Your task to perform on an android device: Open Maps and search for coffee Image 0: 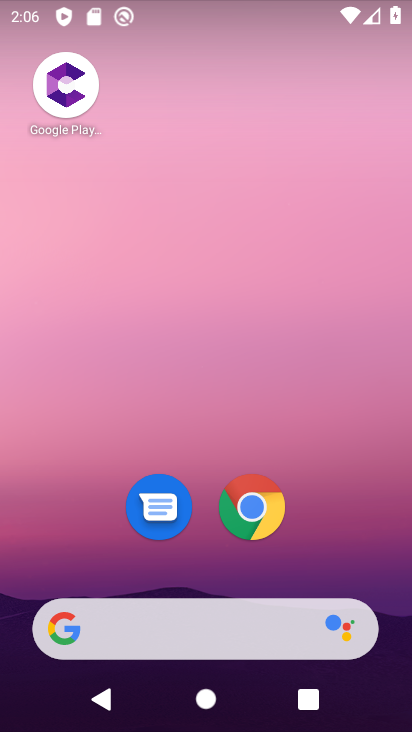
Step 0: drag from (249, 645) to (258, 201)
Your task to perform on an android device: Open Maps and search for coffee Image 1: 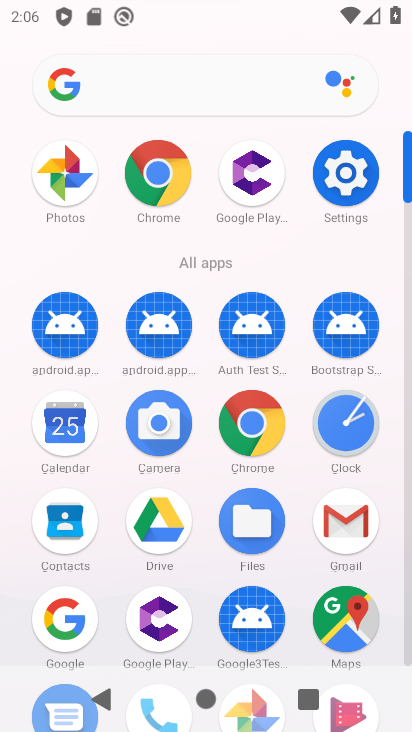
Step 1: drag from (185, 489) to (210, 111)
Your task to perform on an android device: Open Maps and search for coffee Image 2: 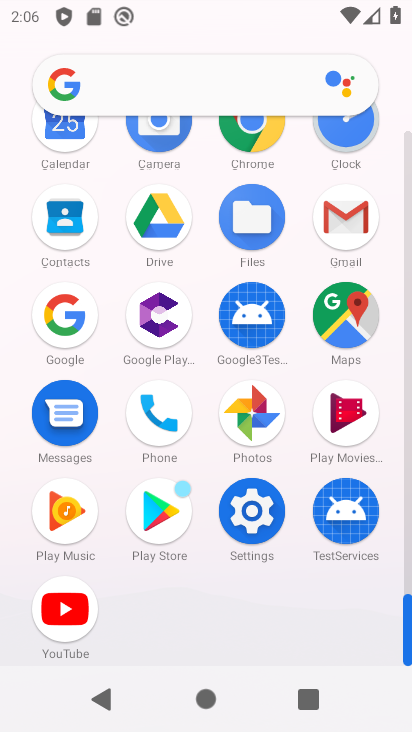
Step 2: click (344, 329)
Your task to perform on an android device: Open Maps and search for coffee Image 3: 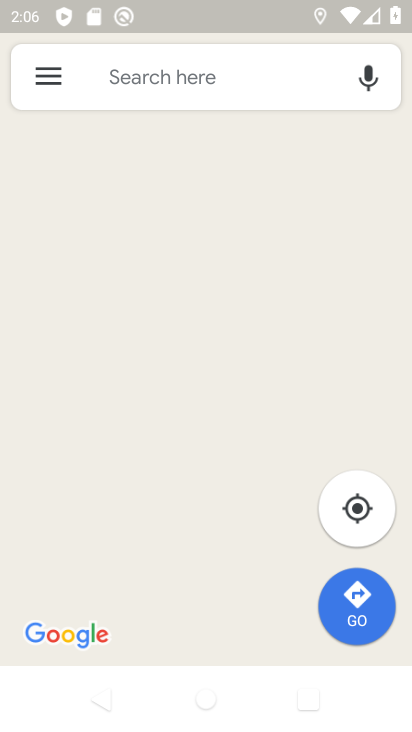
Step 3: click (201, 74)
Your task to perform on an android device: Open Maps and search for coffee Image 4: 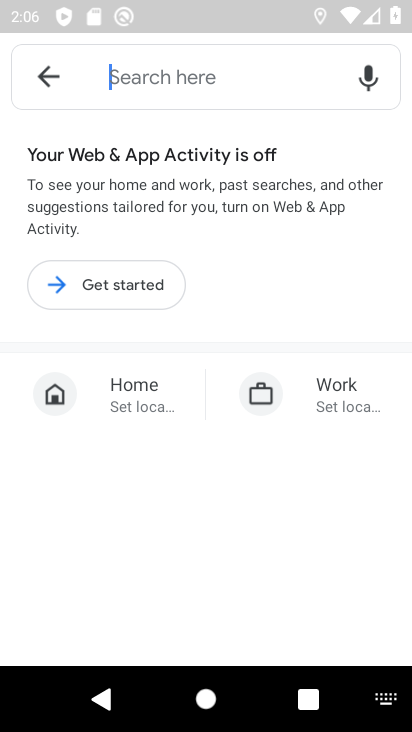
Step 4: type "coffee"
Your task to perform on an android device: Open Maps and search for coffee Image 5: 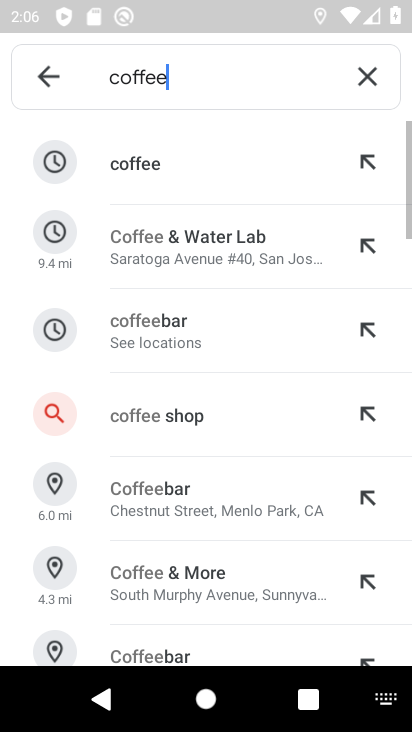
Step 5: click (213, 175)
Your task to perform on an android device: Open Maps and search for coffee Image 6: 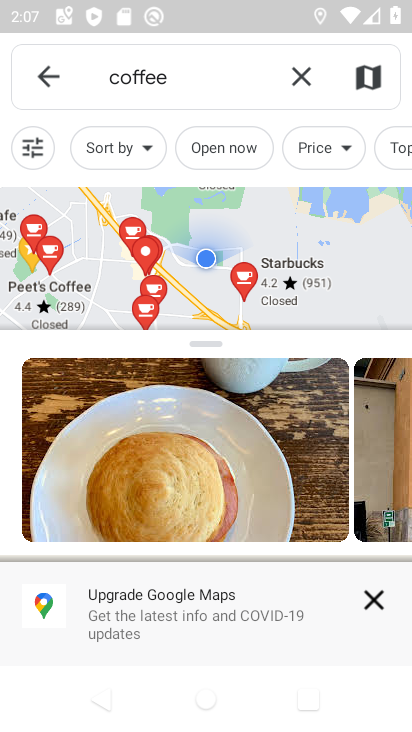
Step 6: task complete